Your task to perform on an android device: When is my next meeting? Image 0: 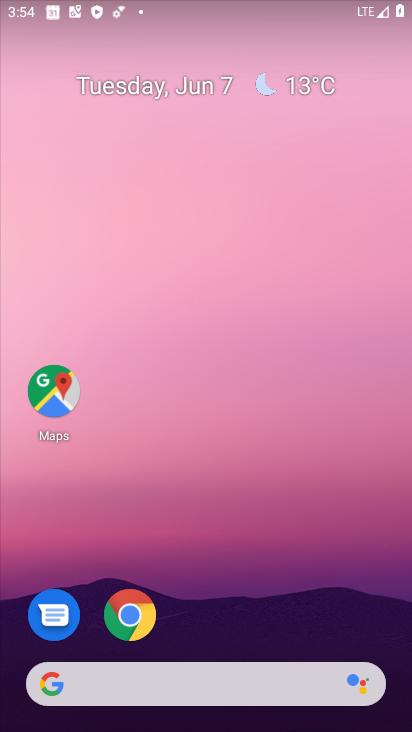
Step 0: drag from (194, 718) to (194, 172)
Your task to perform on an android device: When is my next meeting? Image 1: 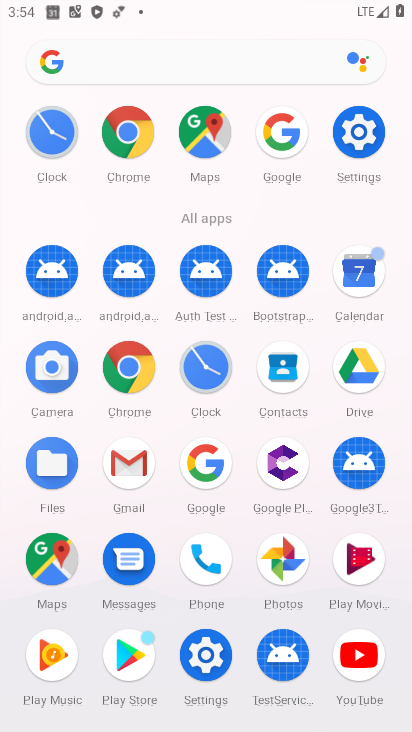
Step 1: click (365, 264)
Your task to perform on an android device: When is my next meeting? Image 2: 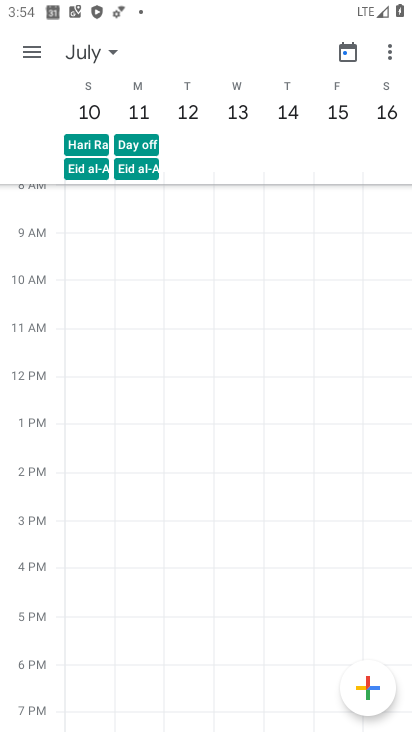
Step 2: click (115, 54)
Your task to perform on an android device: When is my next meeting? Image 3: 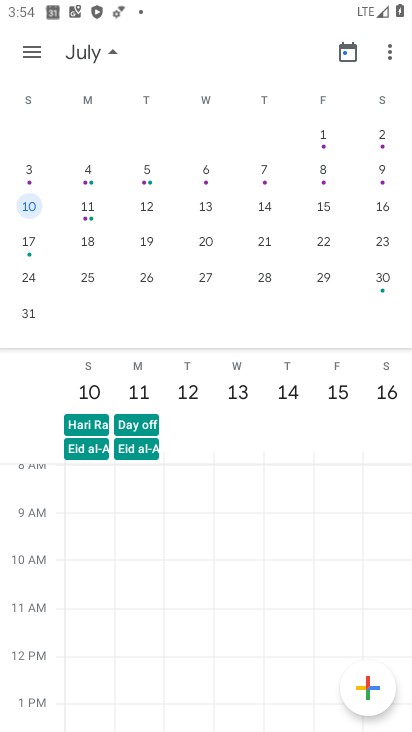
Step 3: drag from (49, 252) to (356, 259)
Your task to perform on an android device: When is my next meeting? Image 4: 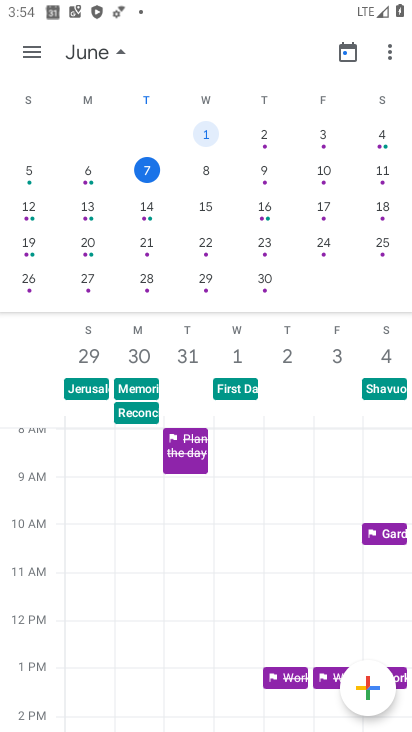
Step 4: click (207, 165)
Your task to perform on an android device: When is my next meeting? Image 5: 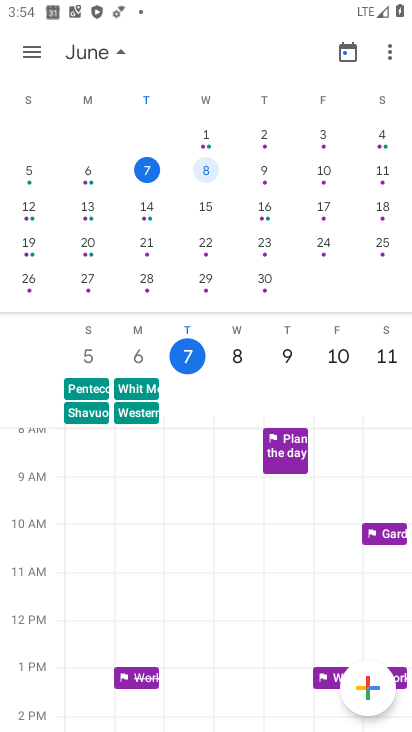
Step 5: click (204, 166)
Your task to perform on an android device: When is my next meeting? Image 6: 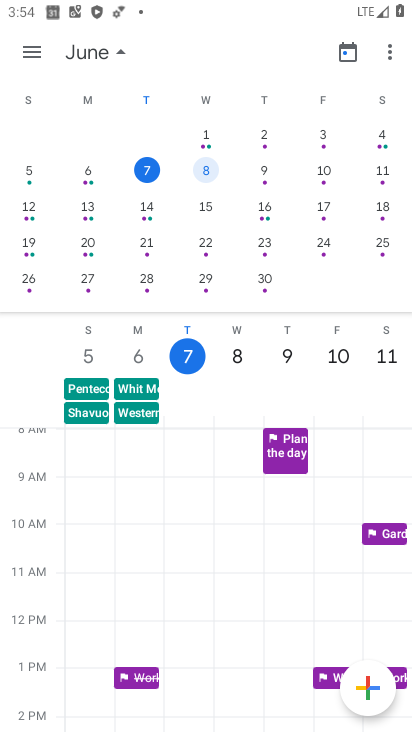
Step 6: click (116, 50)
Your task to perform on an android device: When is my next meeting? Image 7: 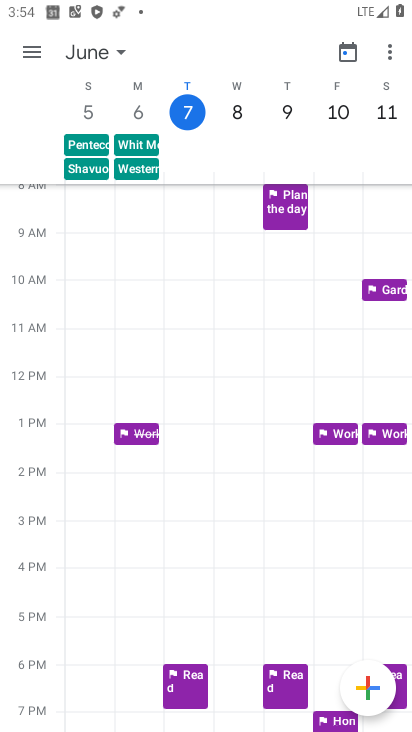
Step 7: click (28, 50)
Your task to perform on an android device: When is my next meeting? Image 8: 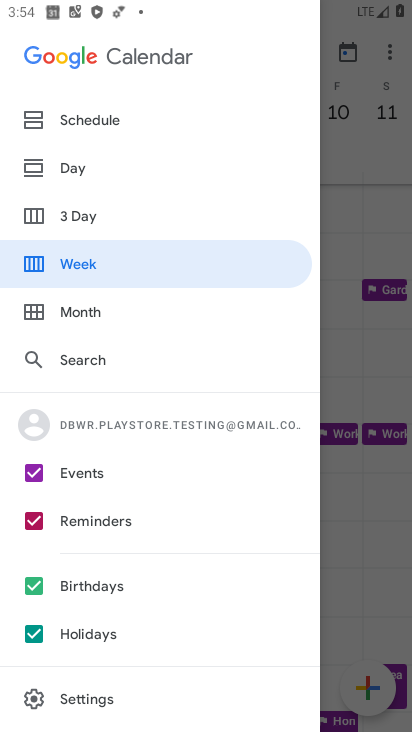
Step 8: click (91, 125)
Your task to perform on an android device: When is my next meeting? Image 9: 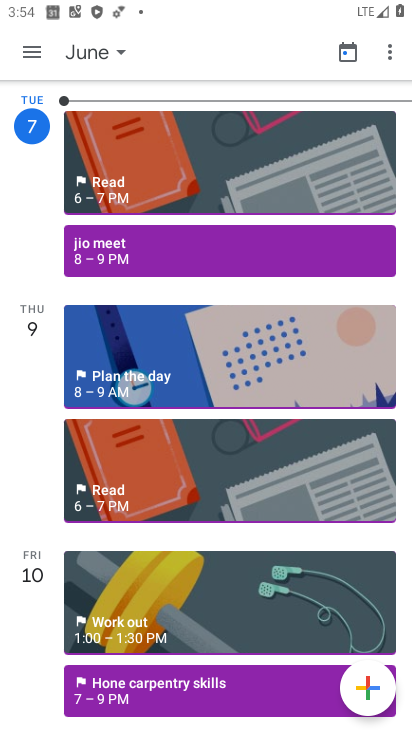
Step 9: click (101, 257)
Your task to perform on an android device: When is my next meeting? Image 10: 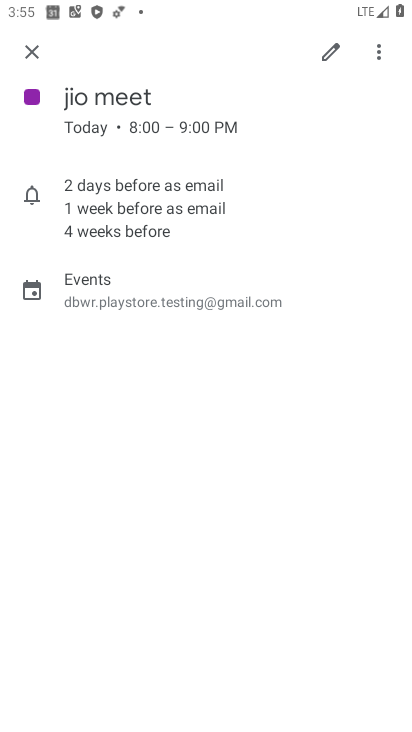
Step 10: task complete